Your task to perform on an android device: Show me the alarms in the clock app Image 0: 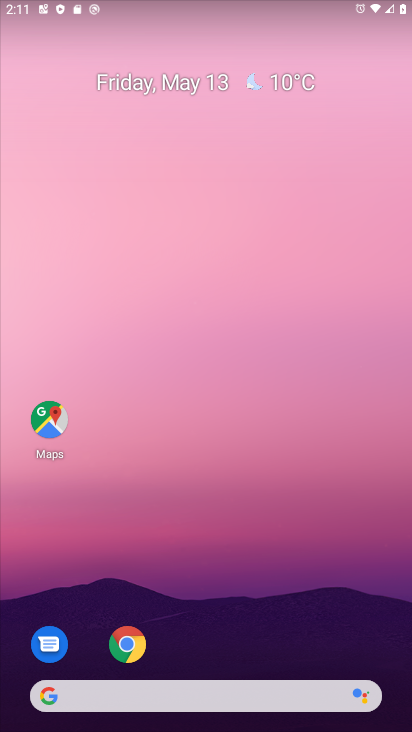
Step 0: drag from (201, 731) to (198, 230)
Your task to perform on an android device: Show me the alarms in the clock app Image 1: 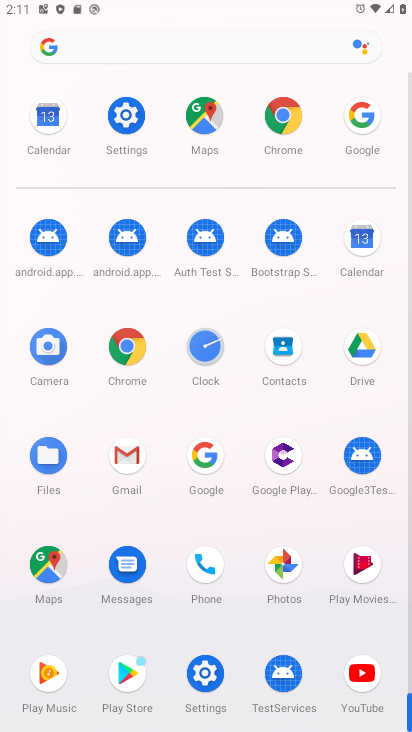
Step 1: click (199, 352)
Your task to perform on an android device: Show me the alarms in the clock app Image 2: 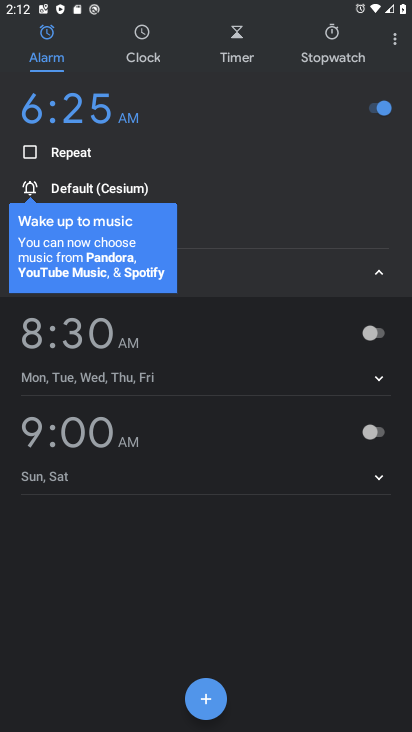
Step 2: task complete